Your task to perform on an android device: set an alarm Image 0: 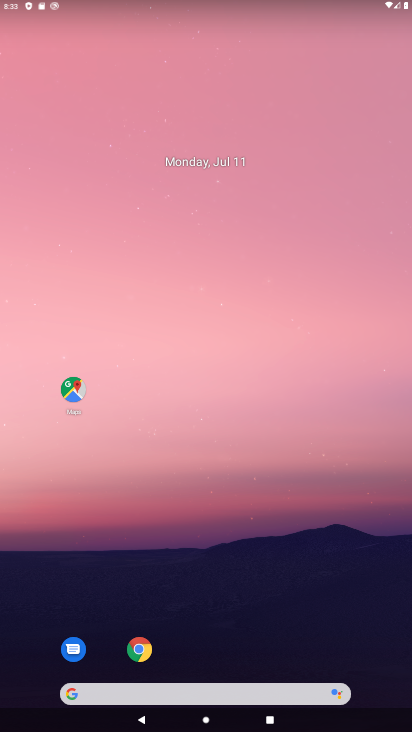
Step 0: drag from (190, 702) to (267, 110)
Your task to perform on an android device: set an alarm Image 1: 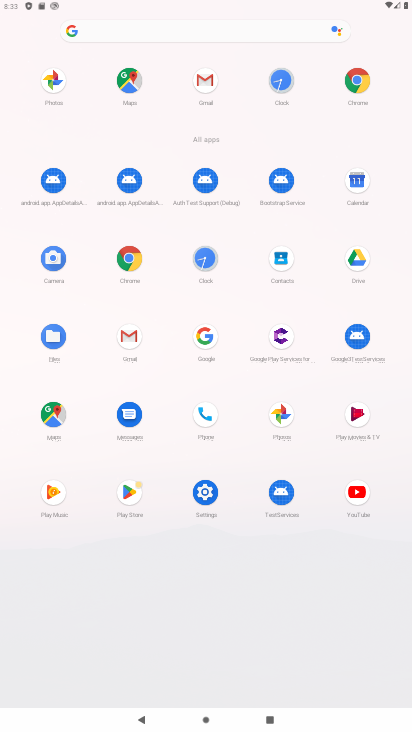
Step 1: click (205, 256)
Your task to perform on an android device: set an alarm Image 2: 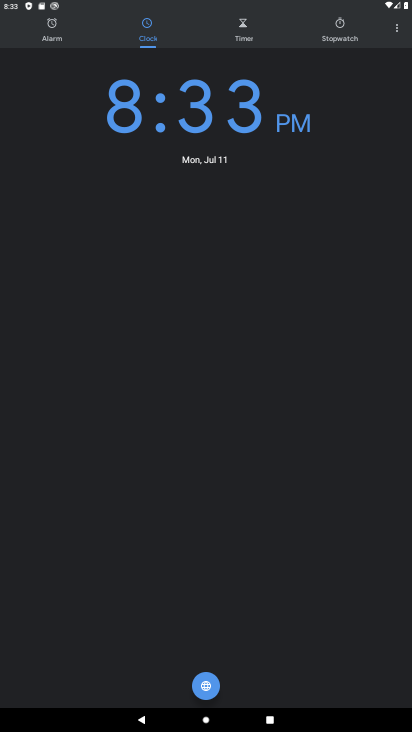
Step 2: click (53, 30)
Your task to perform on an android device: set an alarm Image 3: 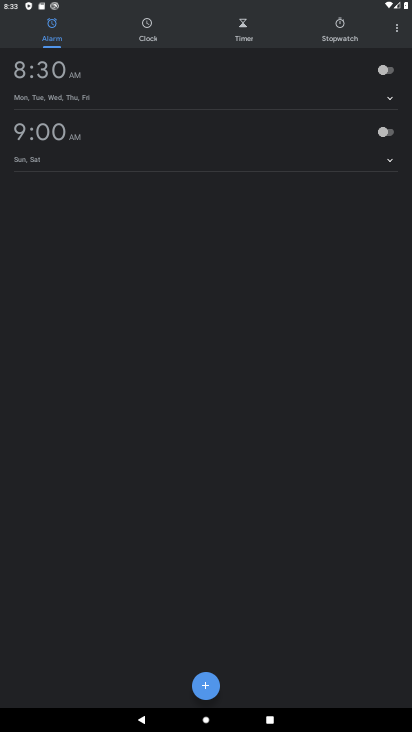
Step 3: click (208, 685)
Your task to perform on an android device: set an alarm Image 4: 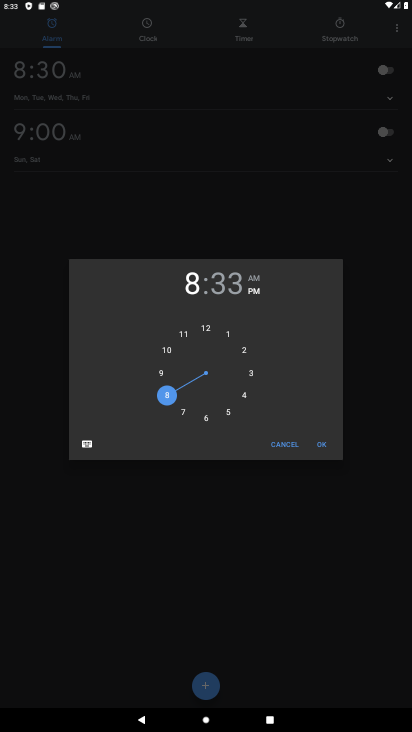
Step 4: click (201, 421)
Your task to perform on an android device: set an alarm Image 5: 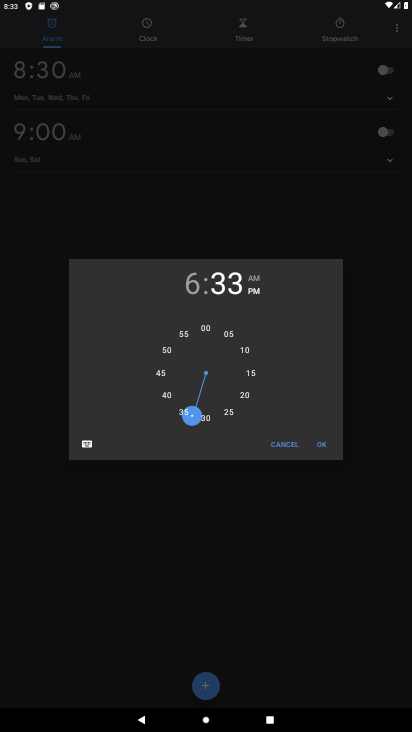
Step 5: click (201, 421)
Your task to perform on an android device: set an alarm Image 6: 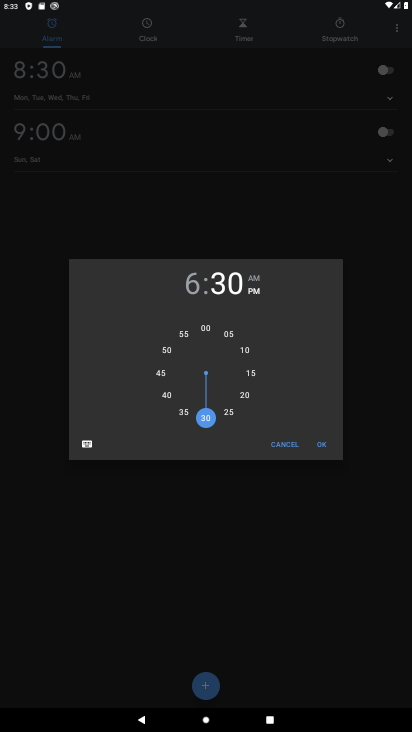
Step 6: click (319, 443)
Your task to perform on an android device: set an alarm Image 7: 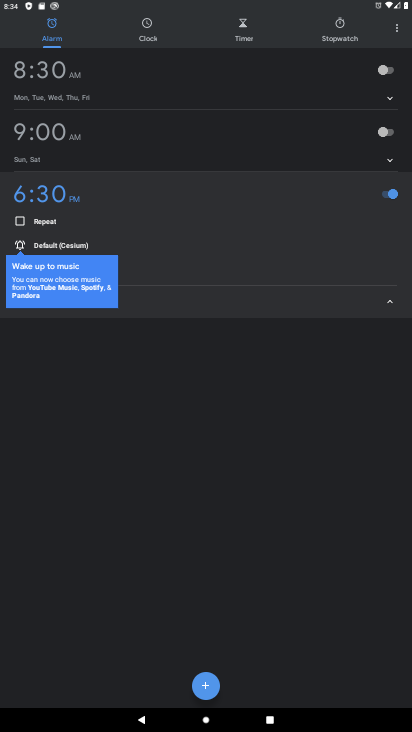
Step 7: click (390, 305)
Your task to perform on an android device: set an alarm Image 8: 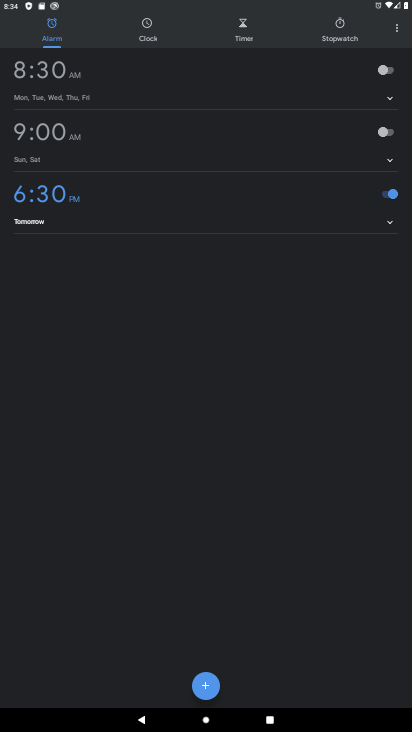
Step 8: task complete